Your task to perform on an android device: turn on priority inbox in the gmail app Image 0: 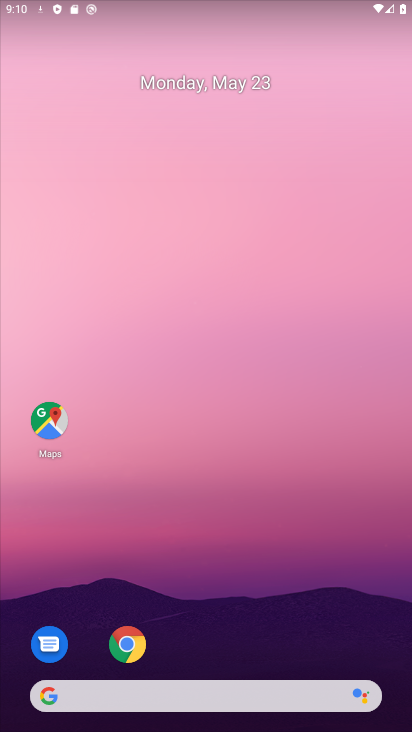
Step 0: drag from (243, 720) to (170, 198)
Your task to perform on an android device: turn on priority inbox in the gmail app Image 1: 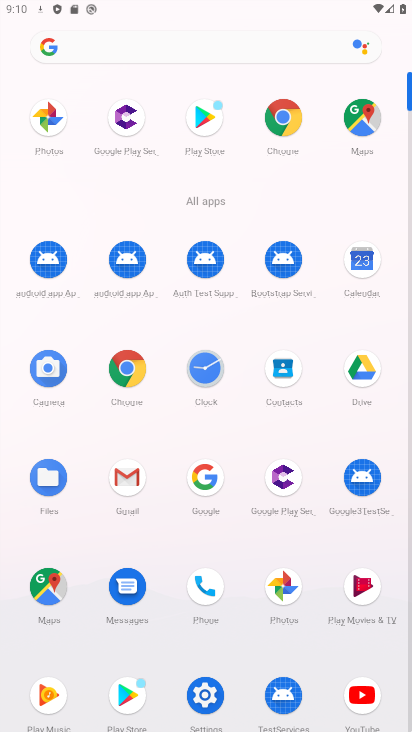
Step 1: click (139, 468)
Your task to perform on an android device: turn on priority inbox in the gmail app Image 2: 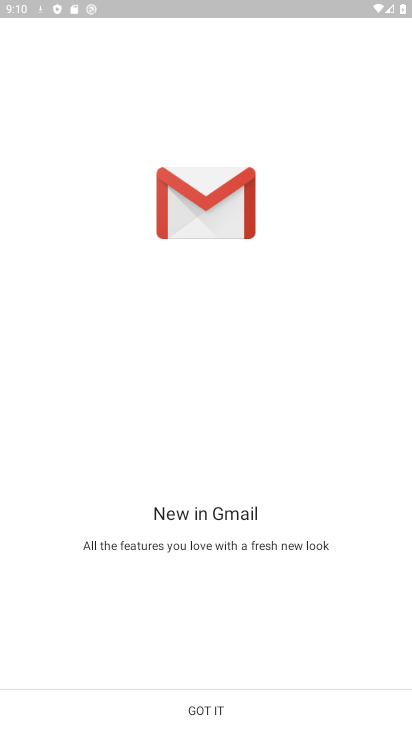
Step 2: click (254, 694)
Your task to perform on an android device: turn on priority inbox in the gmail app Image 3: 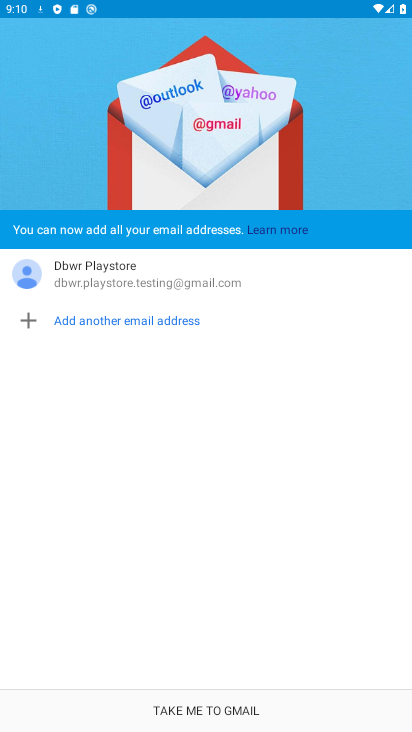
Step 3: click (180, 703)
Your task to perform on an android device: turn on priority inbox in the gmail app Image 4: 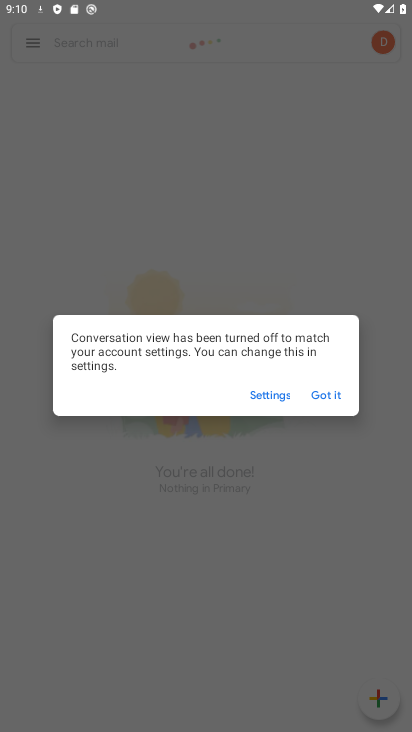
Step 4: click (331, 393)
Your task to perform on an android device: turn on priority inbox in the gmail app Image 5: 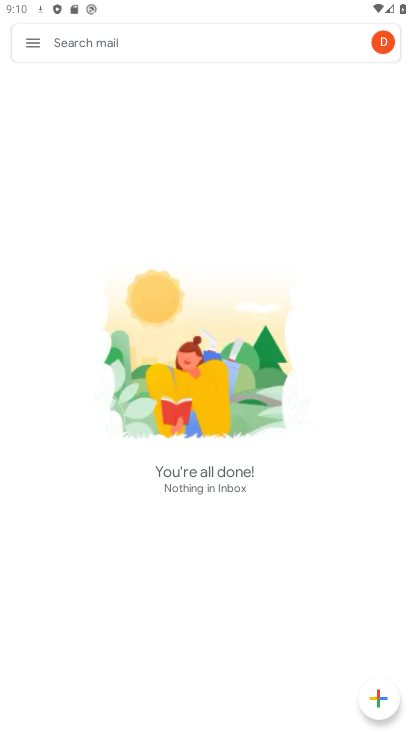
Step 5: click (31, 40)
Your task to perform on an android device: turn on priority inbox in the gmail app Image 6: 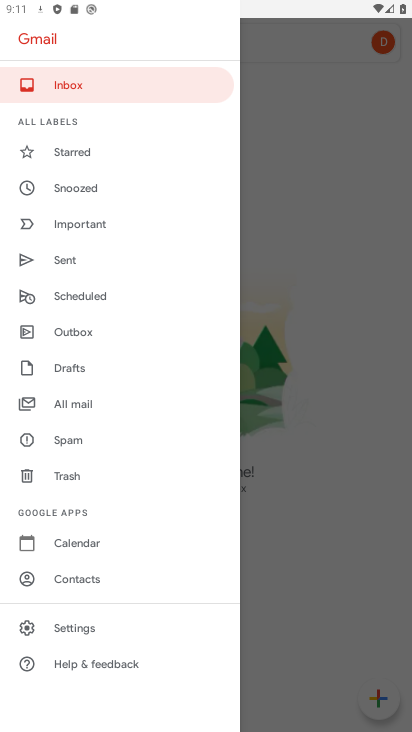
Step 6: click (88, 620)
Your task to perform on an android device: turn on priority inbox in the gmail app Image 7: 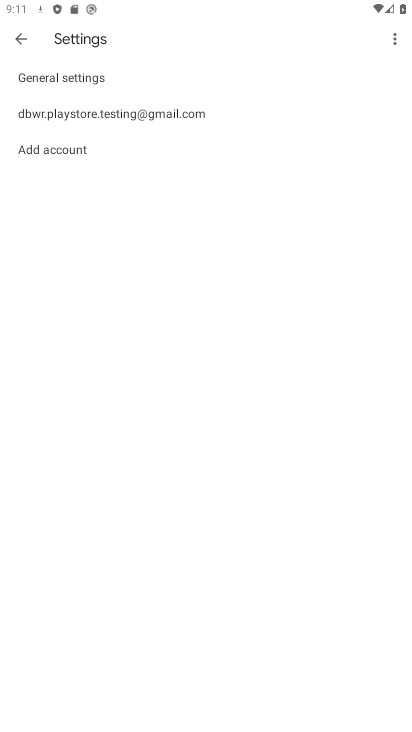
Step 7: click (116, 117)
Your task to perform on an android device: turn on priority inbox in the gmail app Image 8: 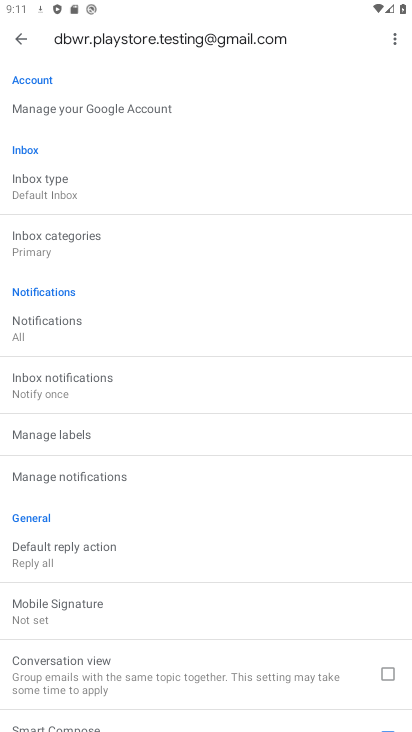
Step 8: click (108, 193)
Your task to perform on an android device: turn on priority inbox in the gmail app Image 9: 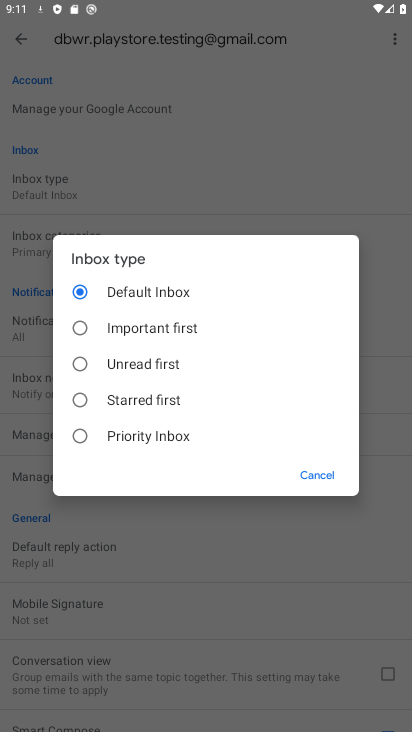
Step 9: click (163, 435)
Your task to perform on an android device: turn on priority inbox in the gmail app Image 10: 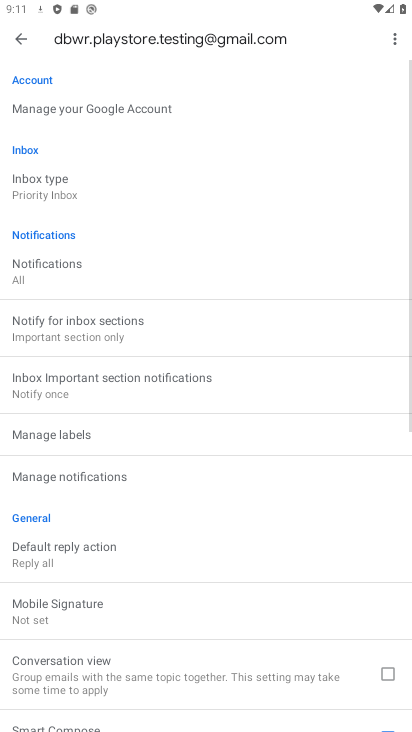
Step 10: task complete